Your task to perform on an android device: remove spam from my inbox in the gmail app Image 0: 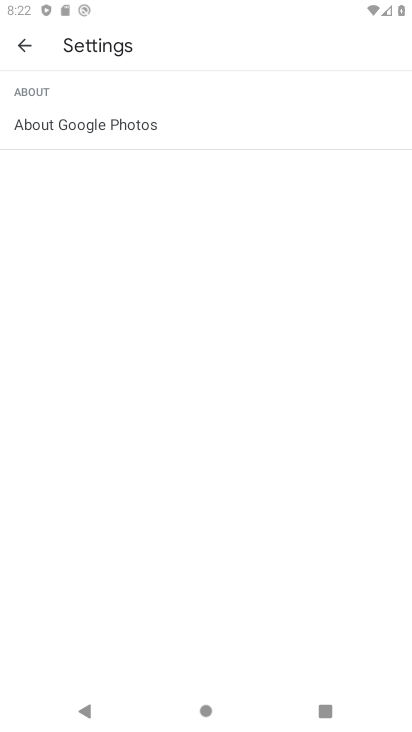
Step 0: press home button
Your task to perform on an android device: remove spam from my inbox in the gmail app Image 1: 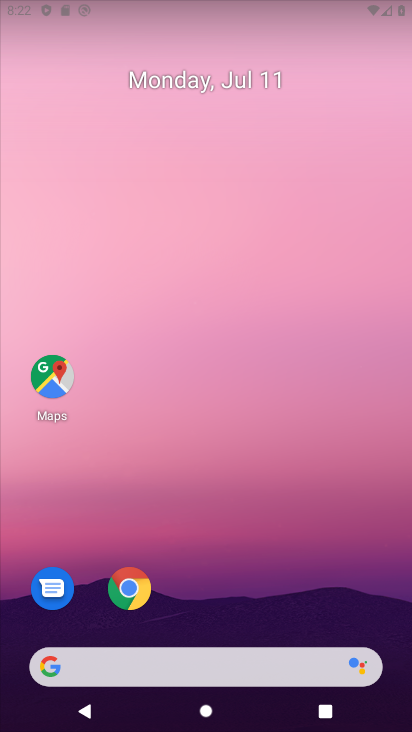
Step 1: drag from (275, 709) to (338, 86)
Your task to perform on an android device: remove spam from my inbox in the gmail app Image 2: 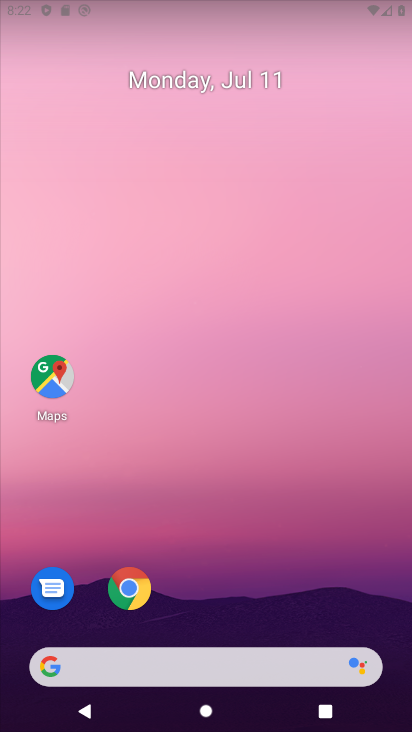
Step 2: drag from (271, 643) to (258, 16)
Your task to perform on an android device: remove spam from my inbox in the gmail app Image 3: 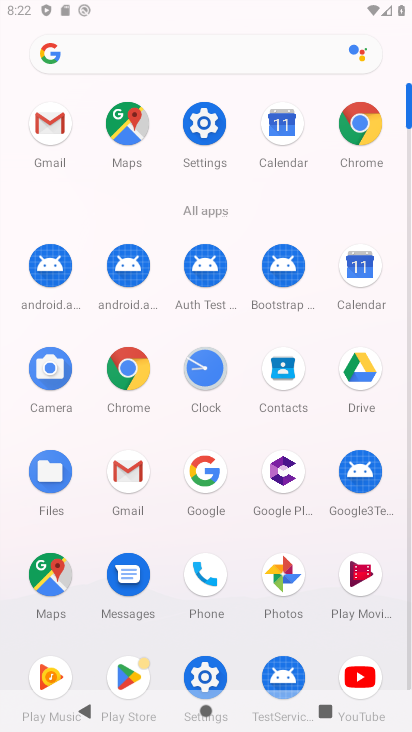
Step 3: click (46, 122)
Your task to perform on an android device: remove spam from my inbox in the gmail app Image 4: 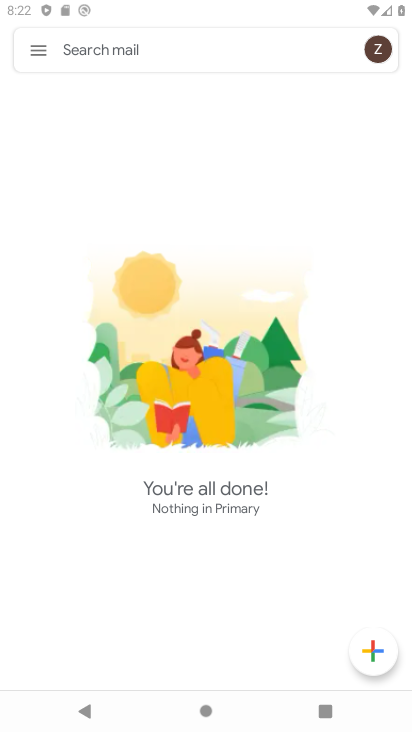
Step 4: click (31, 53)
Your task to perform on an android device: remove spam from my inbox in the gmail app Image 5: 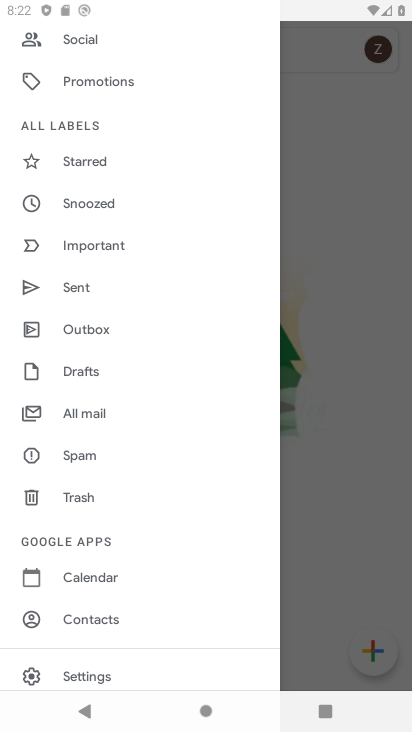
Step 5: click (74, 449)
Your task to perform on an android device: remove spam from my inbox in the gmail app Image 6: 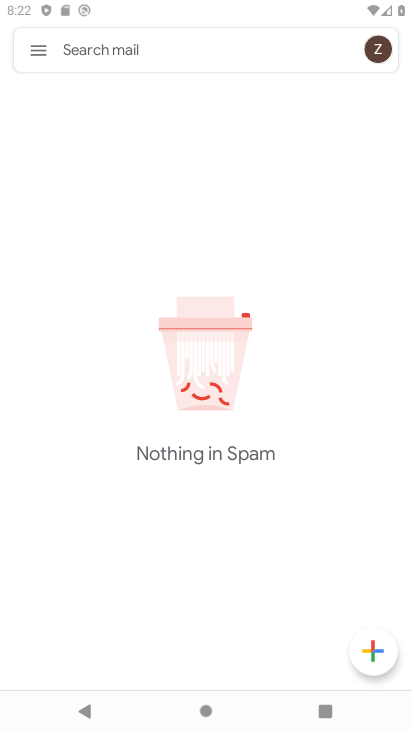
Step 6: task complete